Your task to perform on an android device: When is my next meeting? Image 0: 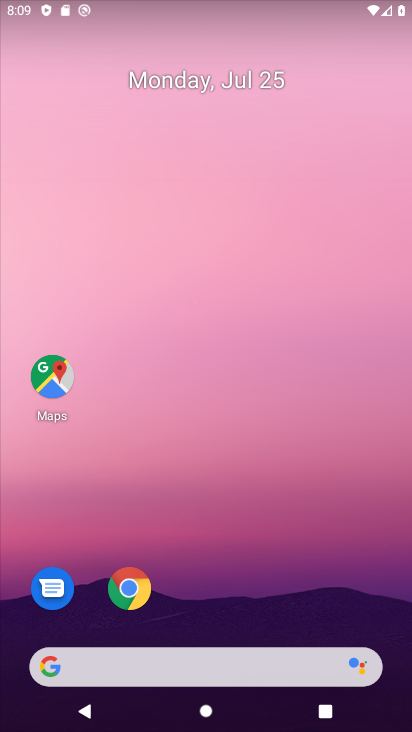
Step 0: press home button
Your task to perform on an android device: When is my next meeting? Image 1: 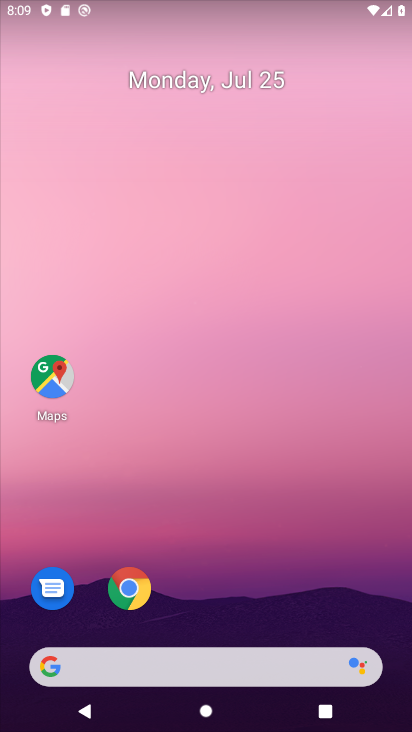
Step 1: drag from (362, 559) to (371, 79)
Your task to perform on an android device: When is my next meeting? Image 2: 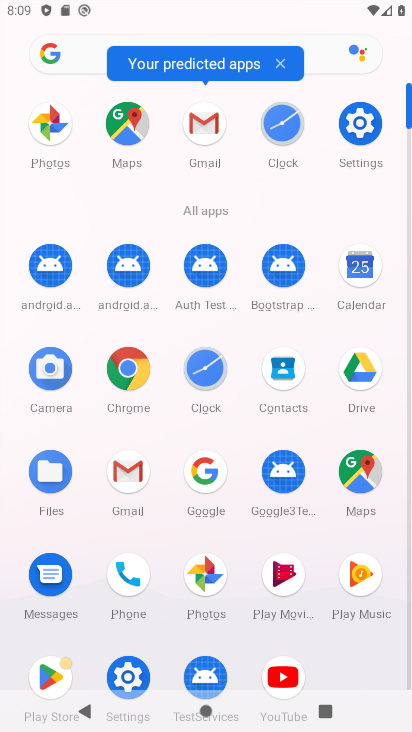
Step 2: click (355, 273)
Your task to perform on an android device: When is my next meeting? Image 3: 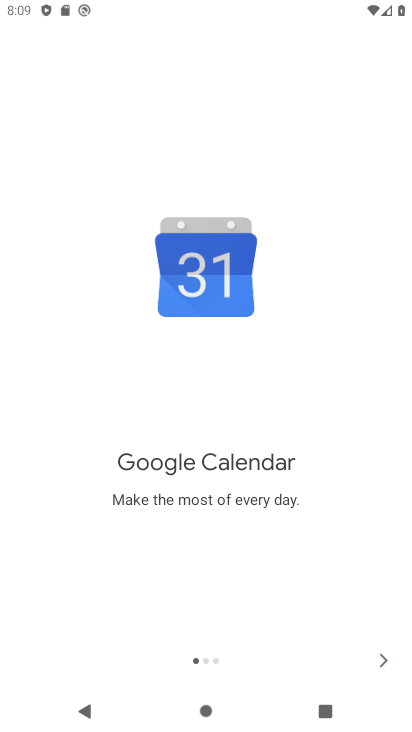
Step 3: click (382, 663)
Your task to perform on an android device: When is my next meeting? Image 4: 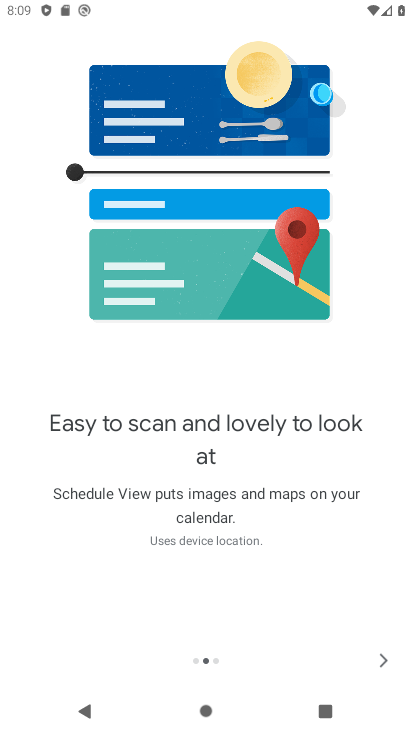
Step 4: click (382, 663)
Your task to perform on an android device: When is my next meeting? Image 5: 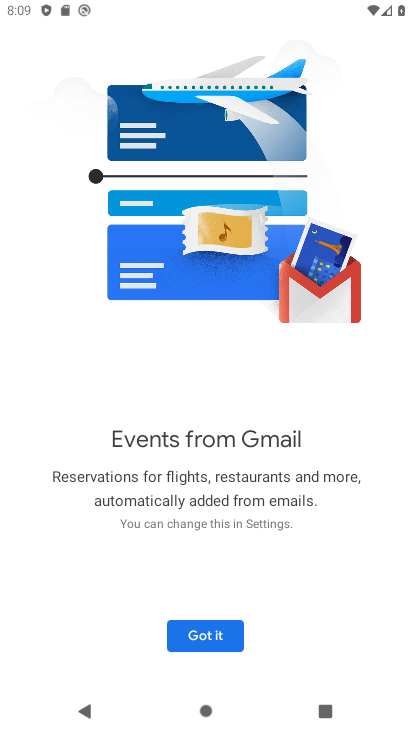
Step 5: click (216, 630)
Your task to perform on an android device: When is my next meeting? Image 6: 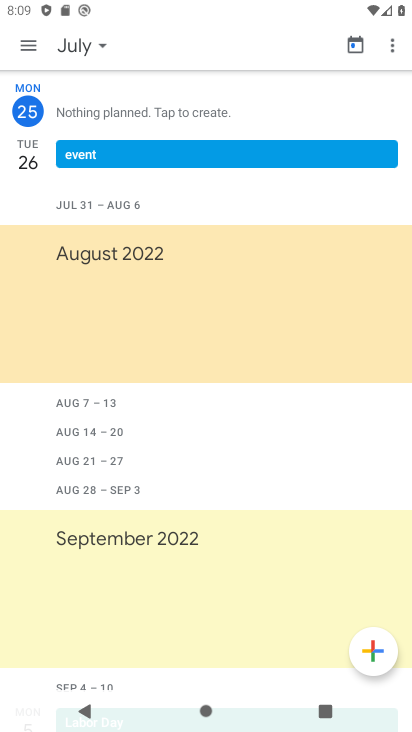
Step 6: click (166, 157)
Your task to perform on an android device: When is my next meeting? Image 7: 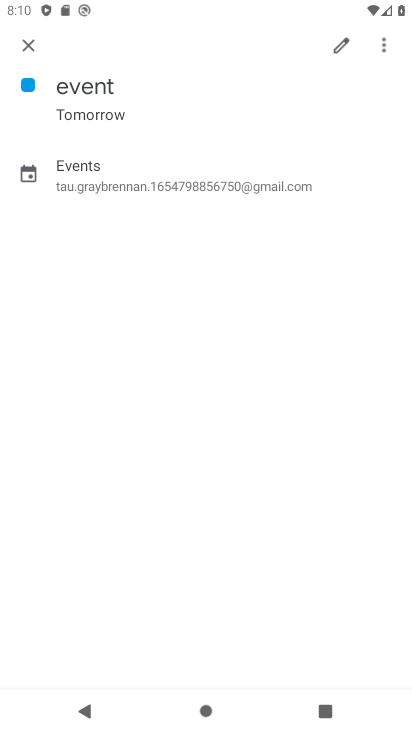
Step 7: task complete